Your task to perform on an android device: turn on the 24-hour format for clock Image 0: 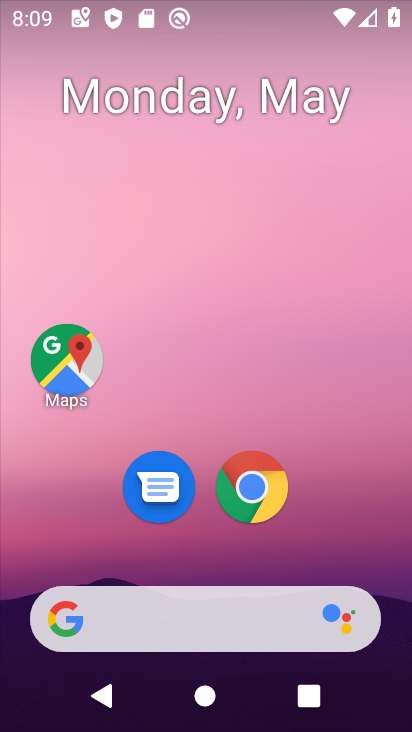
Step 0: drag from (389, 553) to (372, 179)
Your task to perform on an android device: turn on the 24-hour format for clock Image 1: 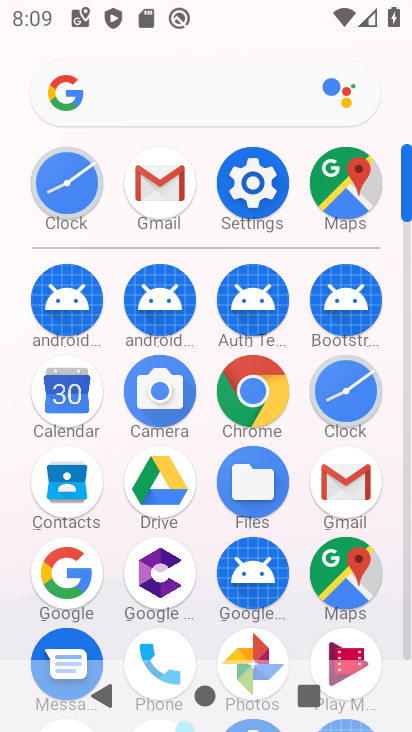
Step 1: click (356, 389)
Your task to perform on an android device: turn on the 24-hour format for clock Image 2: 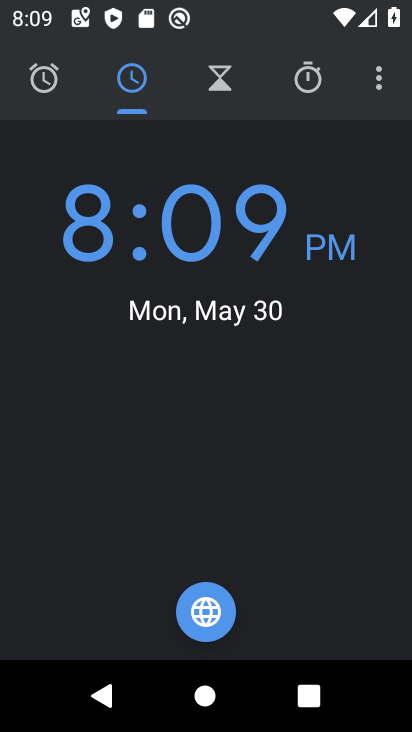
Step 2: click (379, 90)
Your task to perform on an android device: turn on the 24-hour format for clock Image 3: 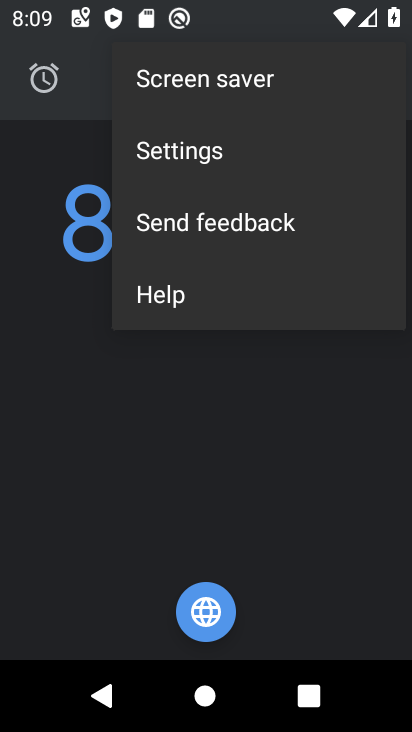
Step 3: click (198, 153)
Your task to perform on an android device: turn on the 24-hour format for clock Image 4: 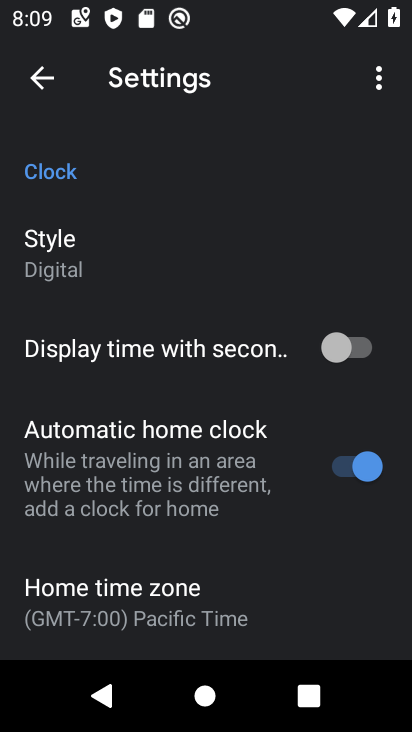
Step 4: drag from (272, 530) to (295, 417)
Your task to perform on an android device: turn on the 24-hour format for clock Image 5: 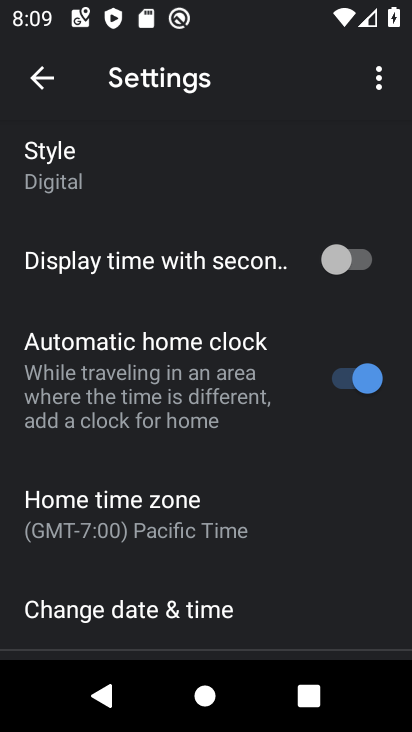
Step 5: drag from (302, 544) to (314, 410)
Your task to perform on an android device: turn on the 24-hour format for clock Image 6: 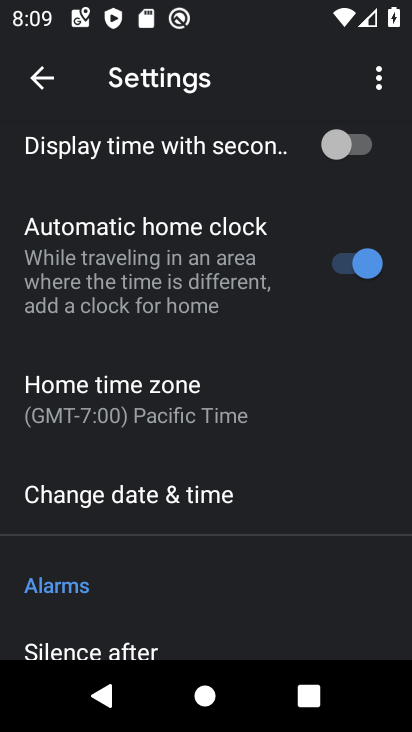
Step 6: drag from (314, 535) to (320, 306)
Your task to perform on an android device: turn on the 24-hour format for clock Image 7: 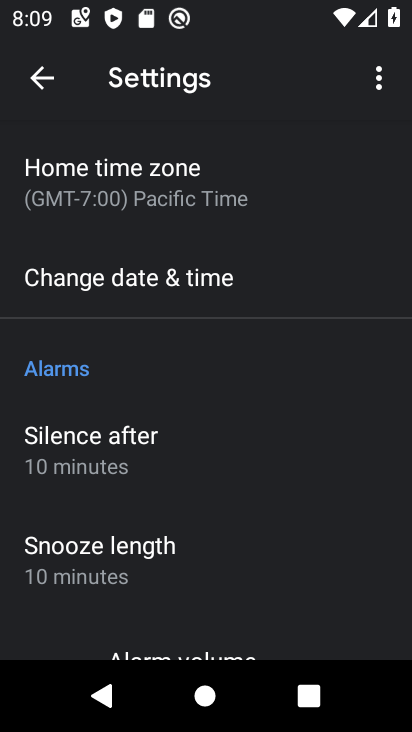
Step 7: click (213, 272)
Your task to perform on an android device: turn on the 24-hour format for clock Image 8: 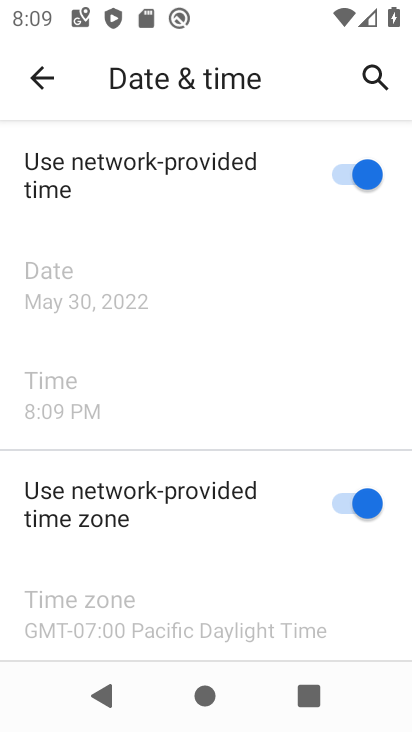
Step 8: drag from (274, 482) to (276, 360)
Your task to perform on an android device: turn on the 24-hour format for clock Image 9: 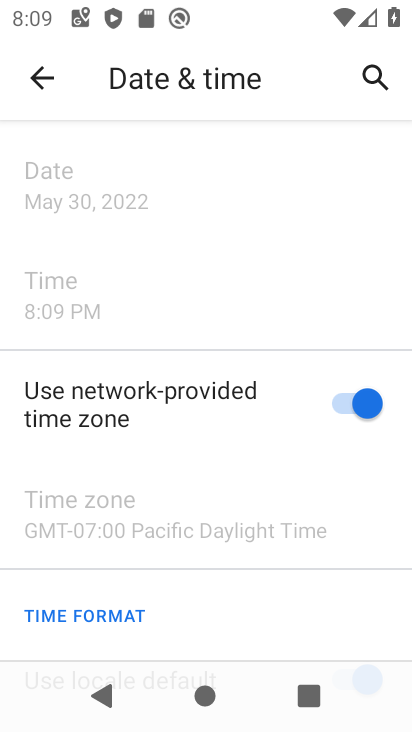
Step 9: drag from (294, 576) to (299, 414)
Your task to perform on an android device: turn on the 24-hour format for clock Image 10: 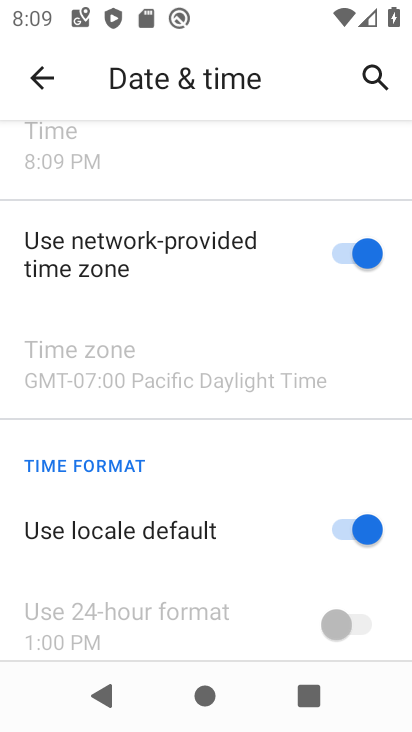
Step 10: drag from (271, 582) to (263, 433)
Your task to perform on an android device: turn on the 24-hour format for clock Image 11: 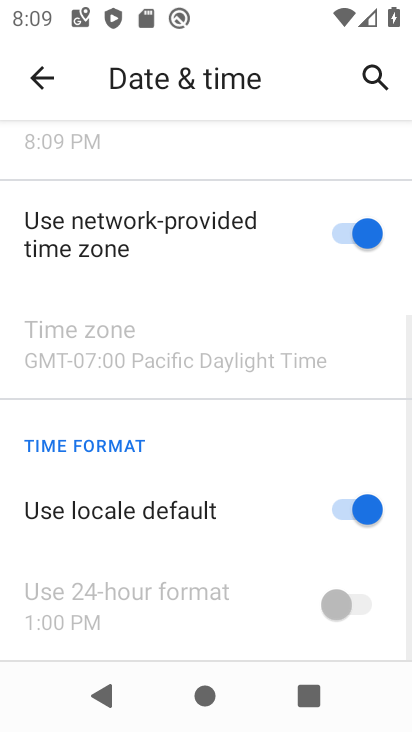
Step 11: click (339, 520)
Your task to perform on an android device: turn on the 24-hour format for clock Image 12: 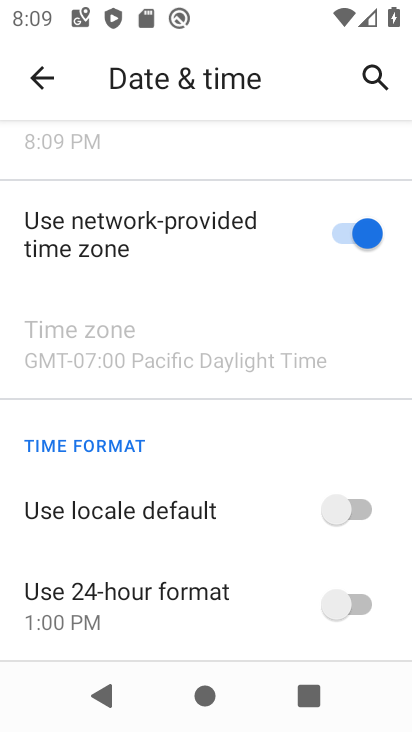
Step 12: click (346, 605)
Your task to perform on an android device: turn on the 24-hour format for clock Image 13: 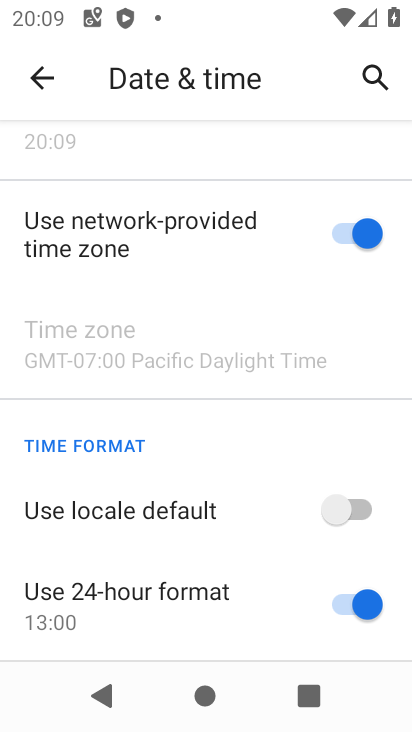
Step 13: task complete